Your task to perform on an android device: Open display settings Image 0: 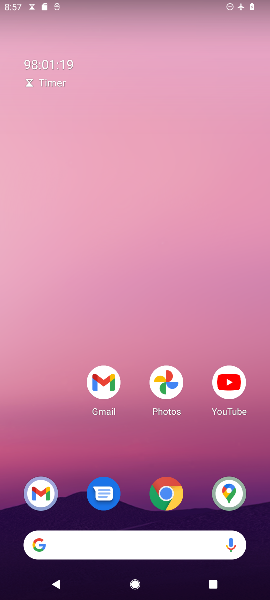
Step 0: drag from (144, 498) to (152, 170)
Your task to perform on an android device: Open display settings Image 1: 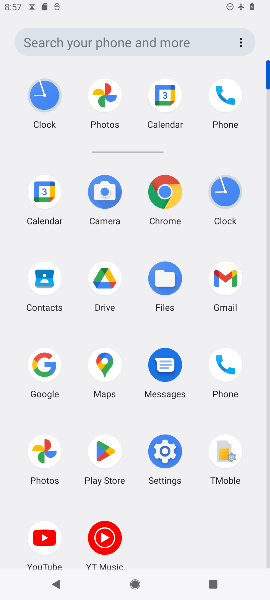
Step 1: click (159, 442)
Your task to perform on an android device: Open display settings Image 2: 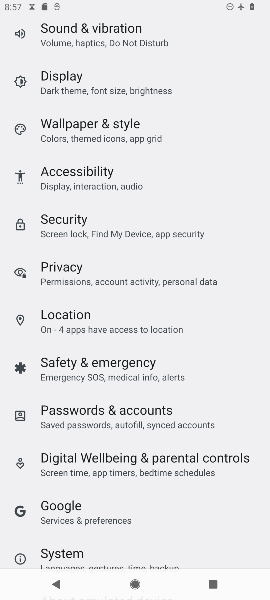
Step 2: click (87, 77)
Your task to perform on an android device: Open display settings Image 3: 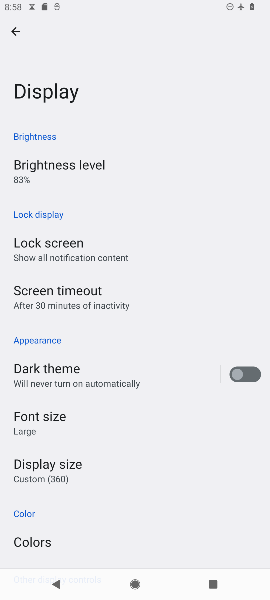
Step 3: task complete